Your task to perform on an android device: Go to accessibility settings Image 0: 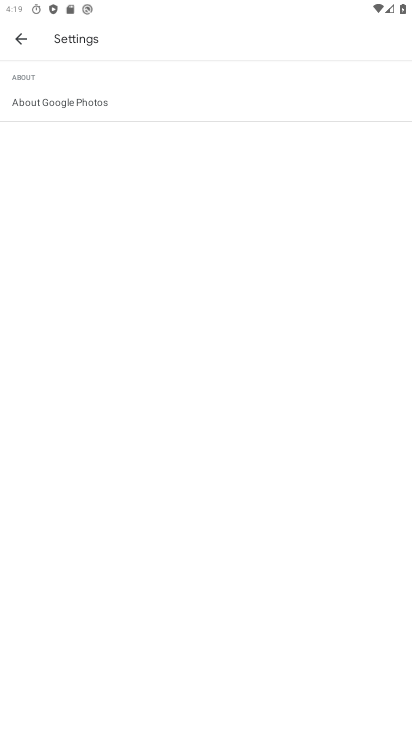
Step 0: press home button
Your task to perform on an android device: Go to accessibility settings Image 1: 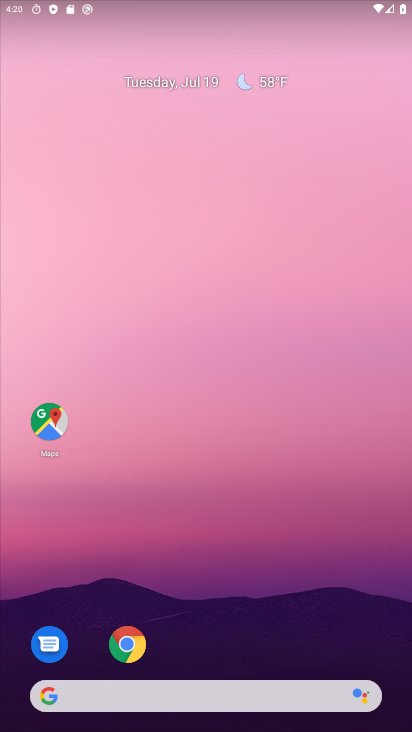
Step 1: click (208, 49)
Your task to perform on an android device: Go to accessibility settings Image 2: 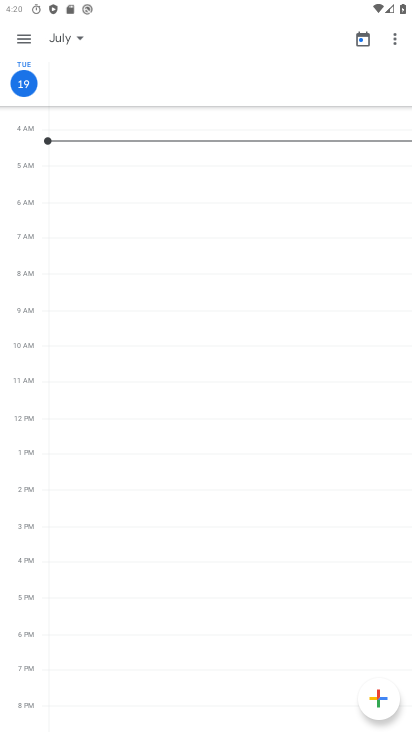
Step 2: drag from (260, 555) to (190, 99)
Your task to perform on an android device: Go to accessibility settings Image 3: 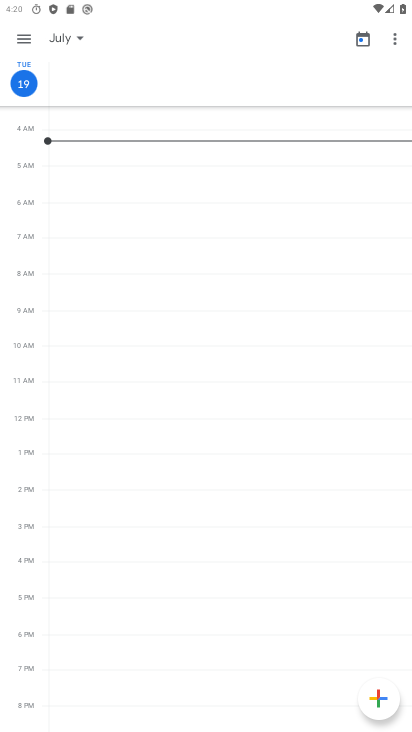
Step 3: press home button
Your task to perform on an android device: Go to accessibility settings Image 4: 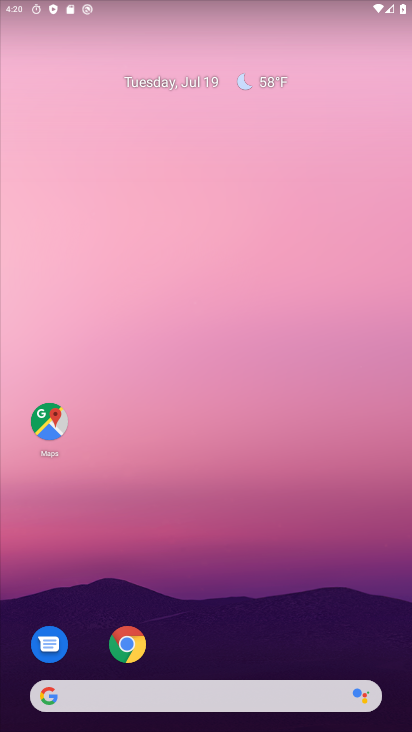
Step 4: drag from (332, 670) to (306, 225)
Your task to perform on an android device: Go to accessibility settings Image 5: 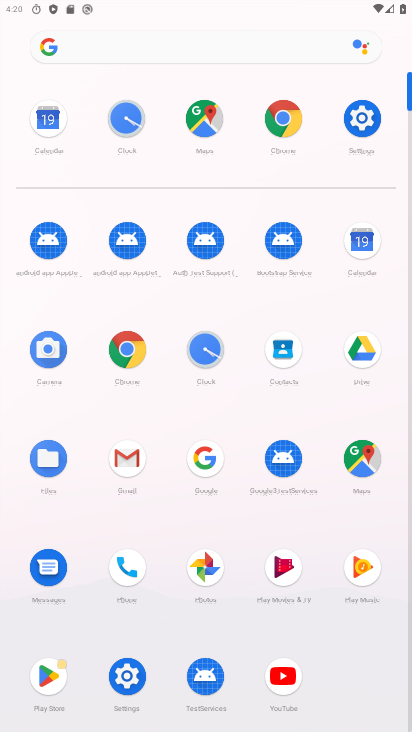
Step 5: click (357, 115)
Your task to perform on an android device: Go to accessibility settings Image 6: 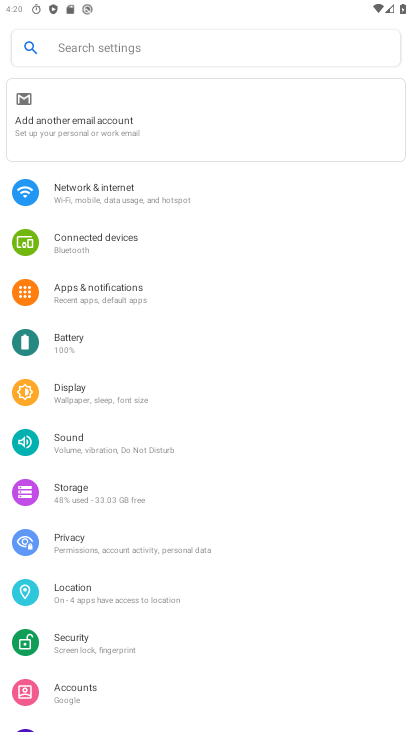
Step 6: drag from (114, 674) to (145, 187)
Your task to perform on an android device: Go to accessibility settings Image 7: 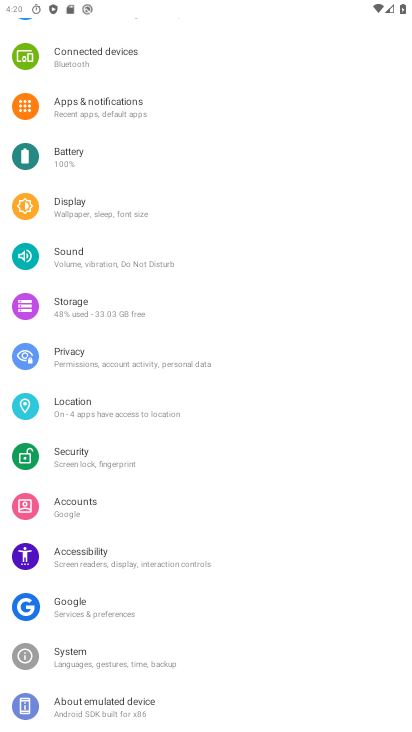
Step 7: click (107, 553)
Your task to perform on an android device: Go to accessibility settings Image 8: 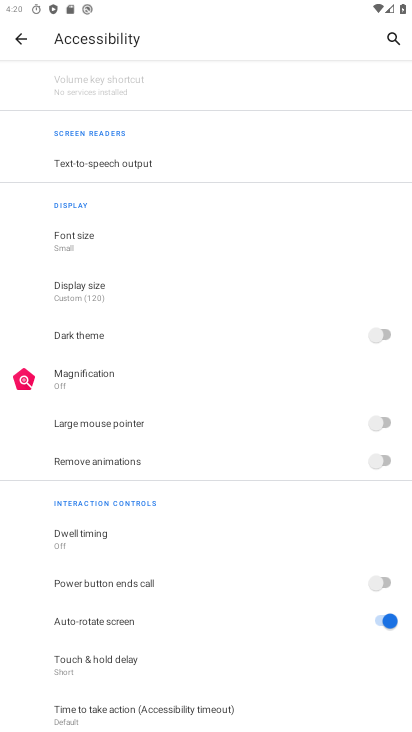
Step 8: task complete